Your task to perform on an android device: Open my contact list Image 0: 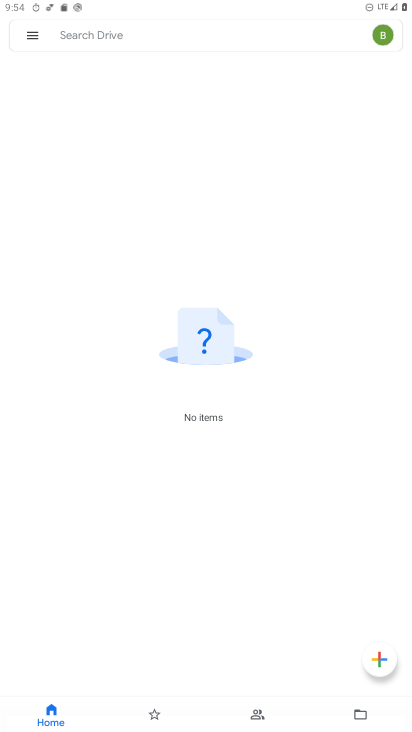
Step 0: press home button
Your task to perform on an android device: Open my contact list Image 1: 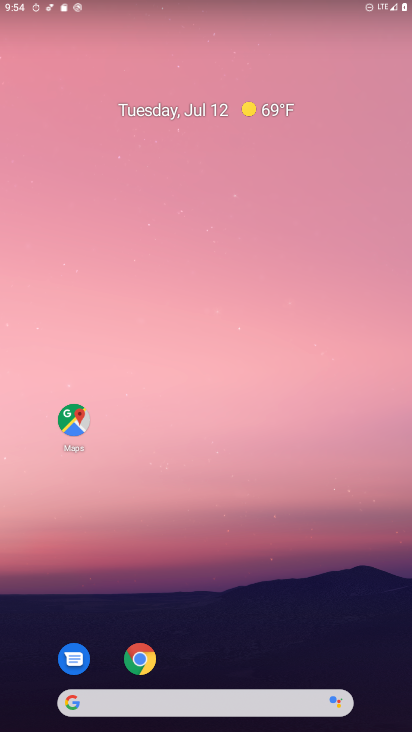
Step 1: drag from (263, 731) to (257, 216)
Your task to perform on an android device: Open my contact list Image 2: 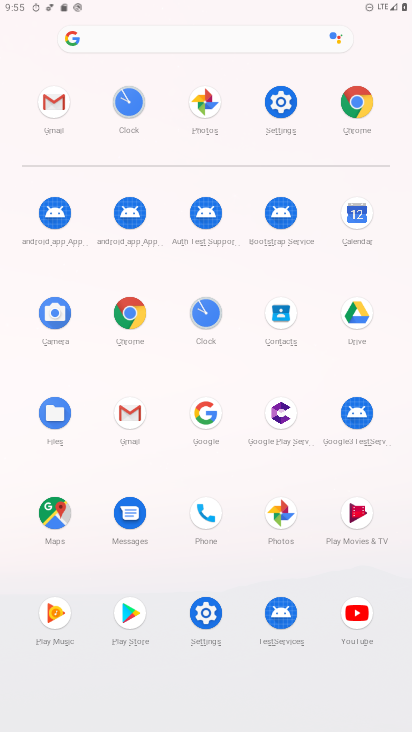
Step 2: click (280, 309)
Your task to perform on an android device: Open my contact list Image 3: 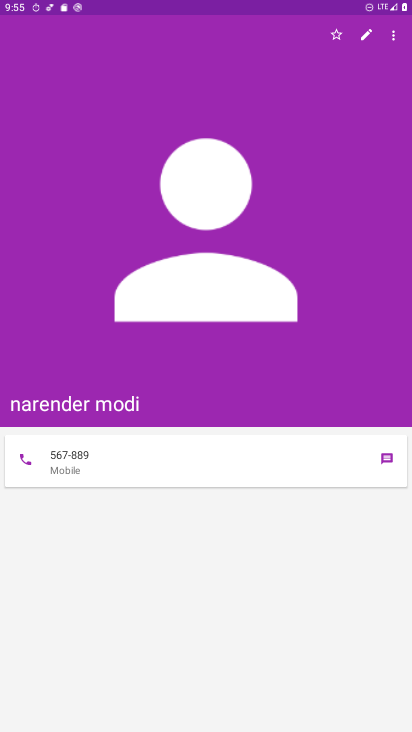
Step 3: click (155, 171)
Your task to perform on an android device: Open my contact list Image 4: 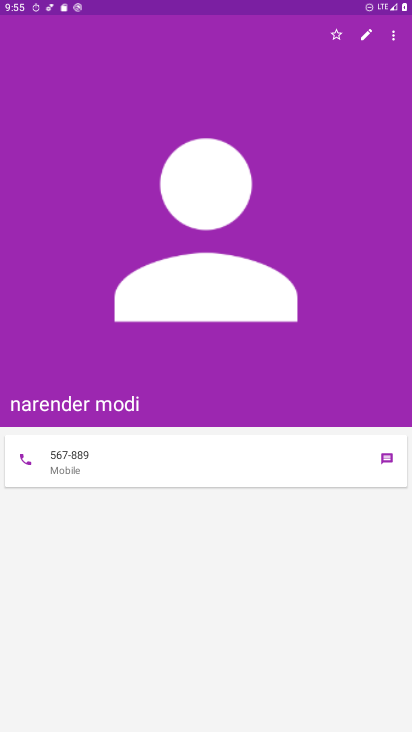
Step 4: click (156, 601)
Your task to perform on an android device: Open my contact list Image 5: 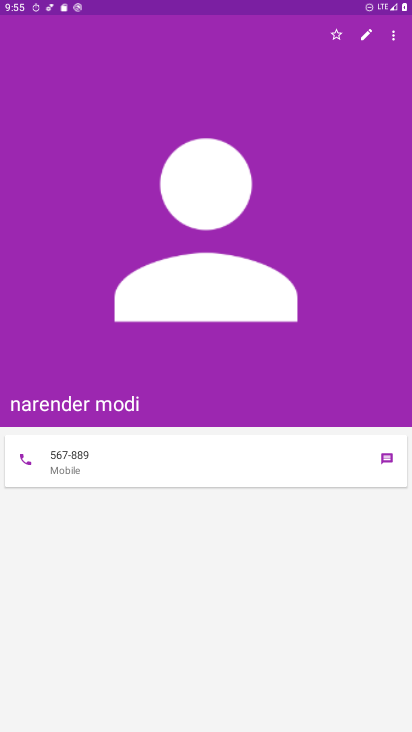
Step 5: drag from (261, 103) to (259, 249)
Your task to perform on an android device: Open my contact list Image 6: 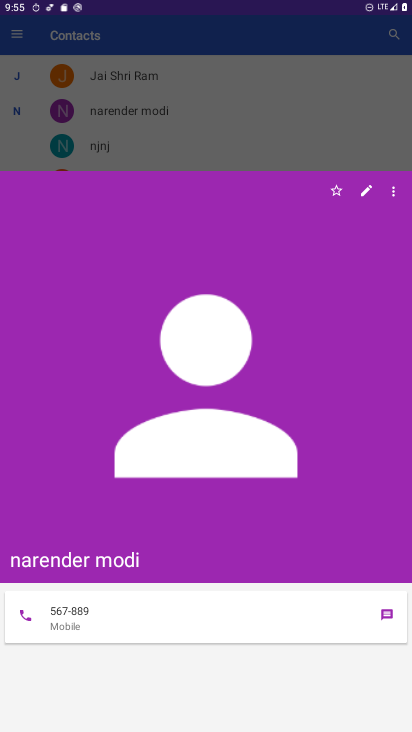
Step 6: click (268, 677)
Your task to perform on an android device: Open my contact list Image 7: 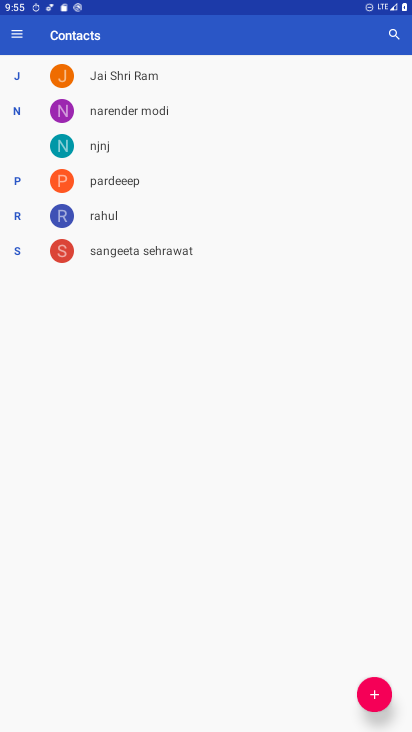
Step 7: task complete